Your task to perform on an android device: Search for a new lipgloss Image 0: 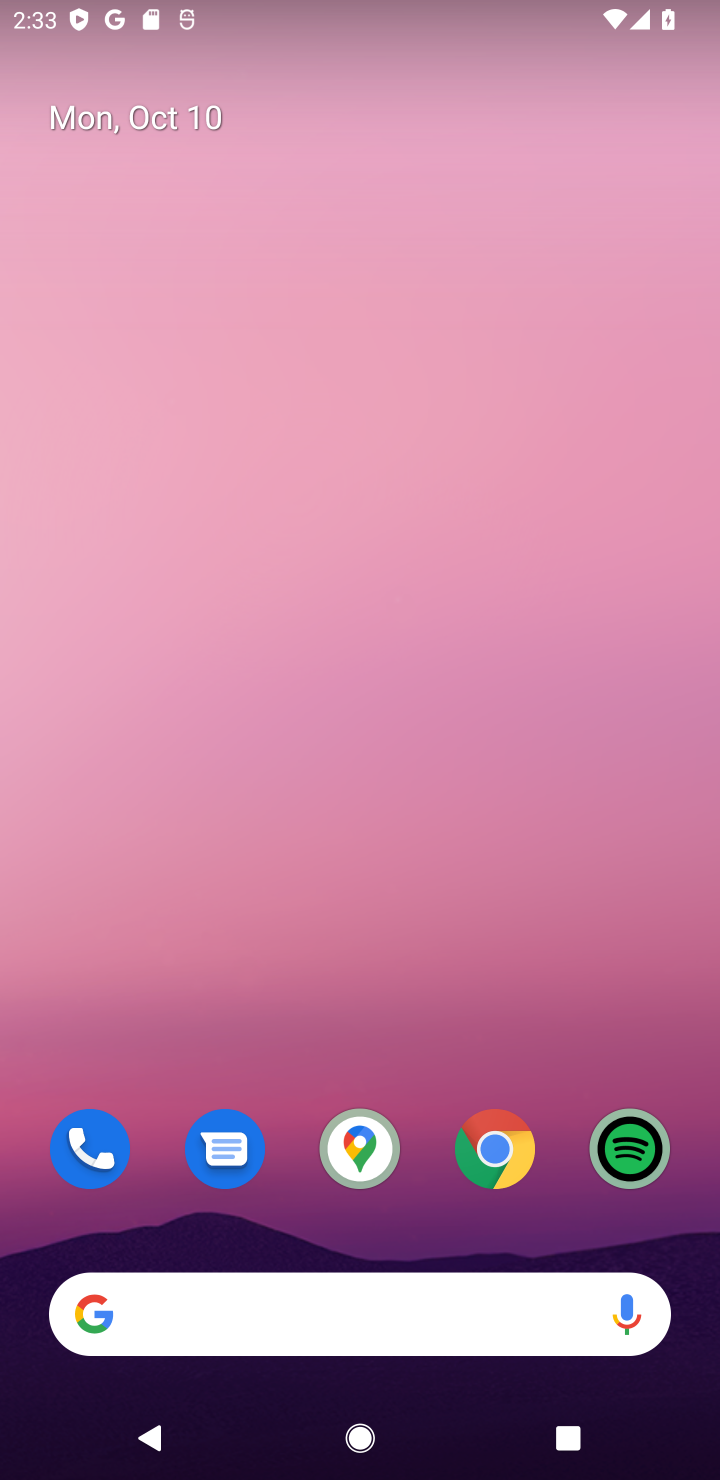
Step 0: click (346, 1338)
Your task to perform on an android device: Search for a new lipgloss Image 1: 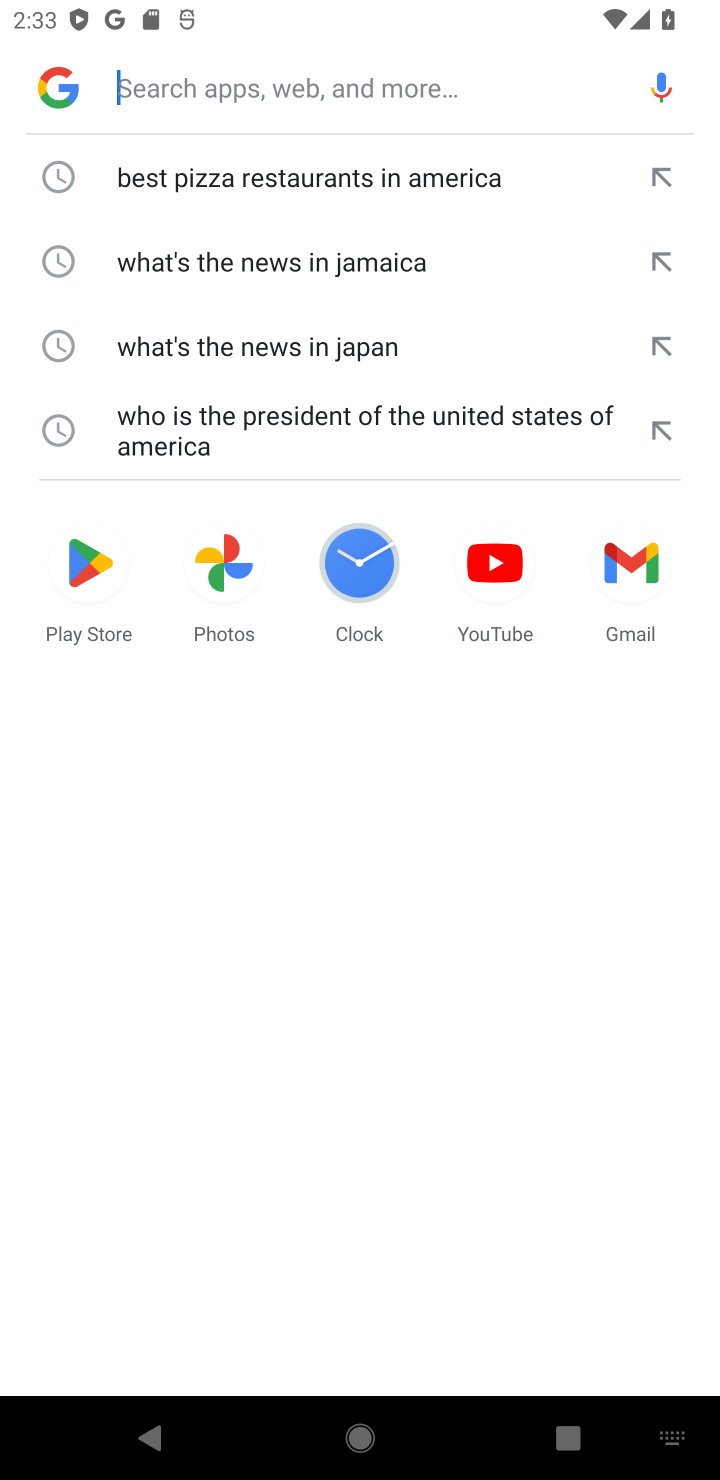
Step 1: type "new lipgloss"
Your task to perform on an android device: Search for a new lipgloss Image 2: 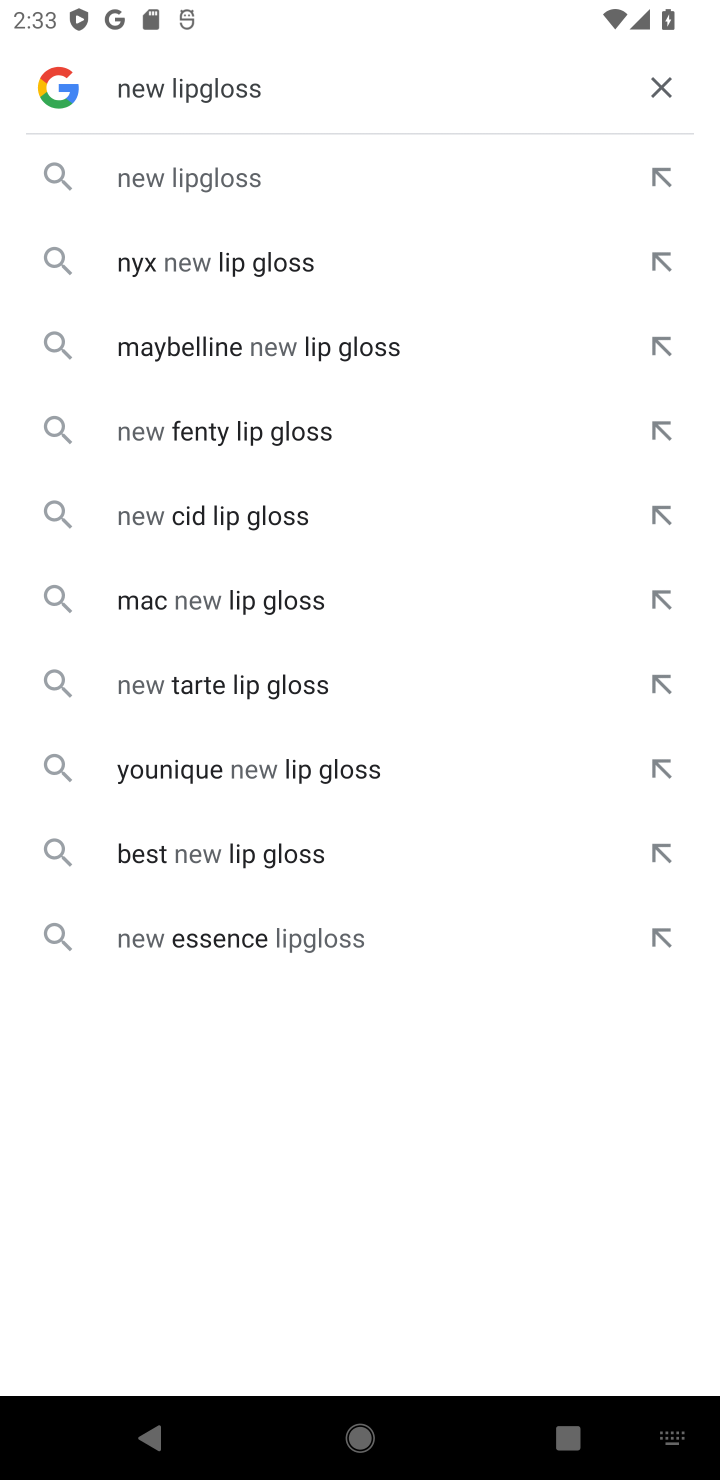
Step 2: click (393, 186)
Your task to perform on an android device: Search for a new lipgloss Image 3: 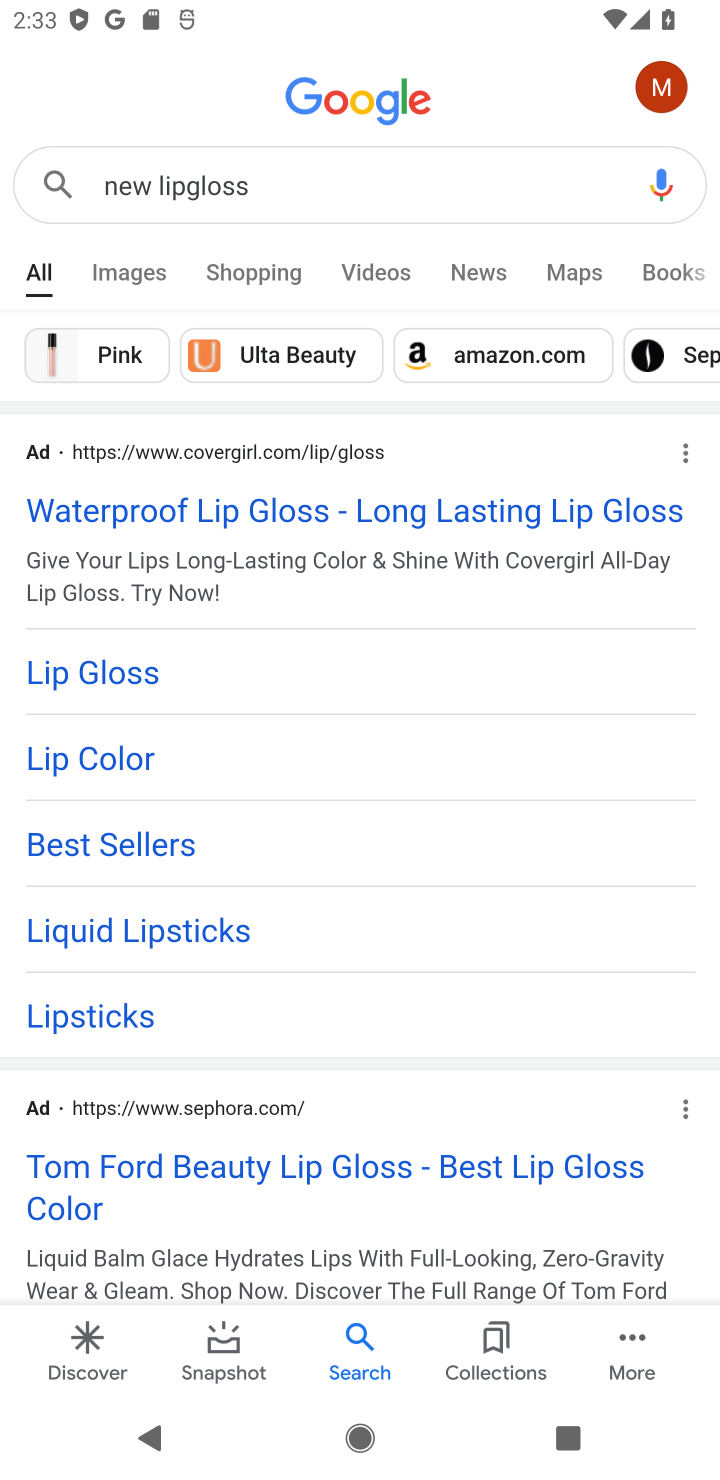
Step 3: task complete